Your task to perform on an android device: turn on improve location accuracy Image 0: 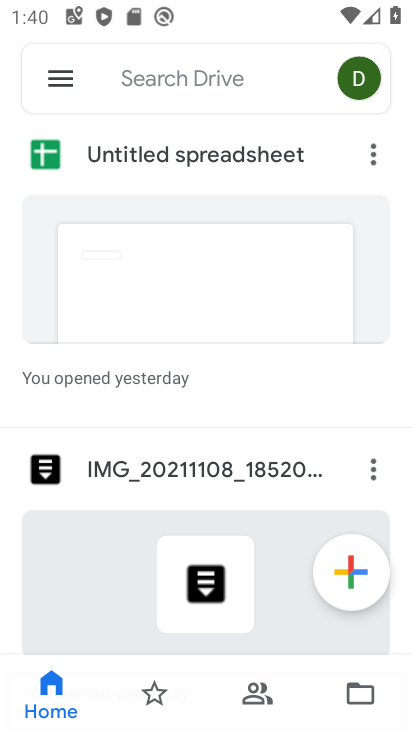
Step 0: press home button
Your task to perform on an android device: turn on improve location accuracy Image 1: 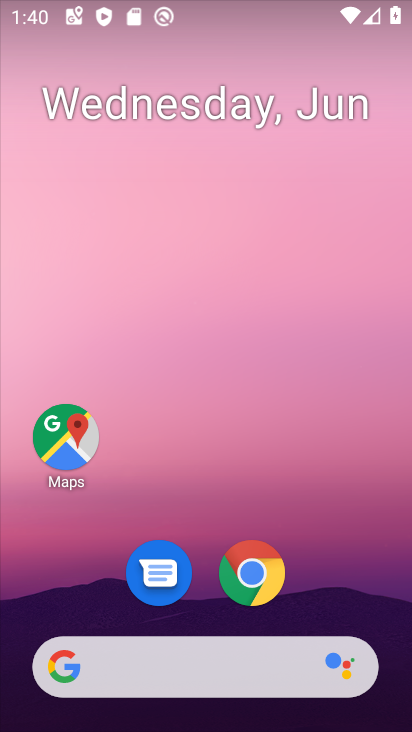
Step 1: drag from (333, 527) to (312, 117)
Your task to perform on an android device: turn on improve location accuracy Image 2: 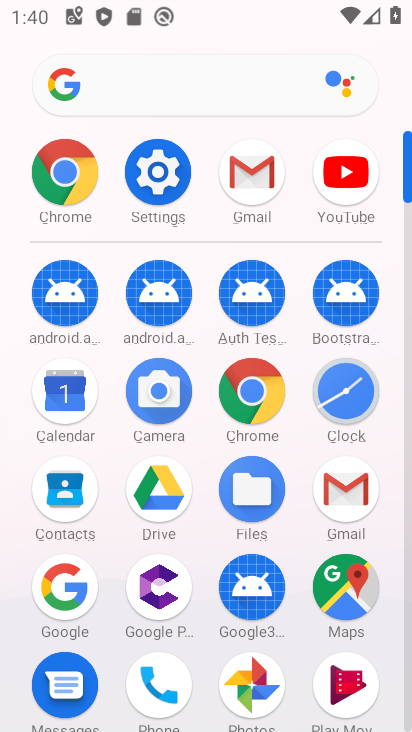
Step 2: click (172, 192)
Your task to perform on an android device: turn on improve location accuracy Image 3: 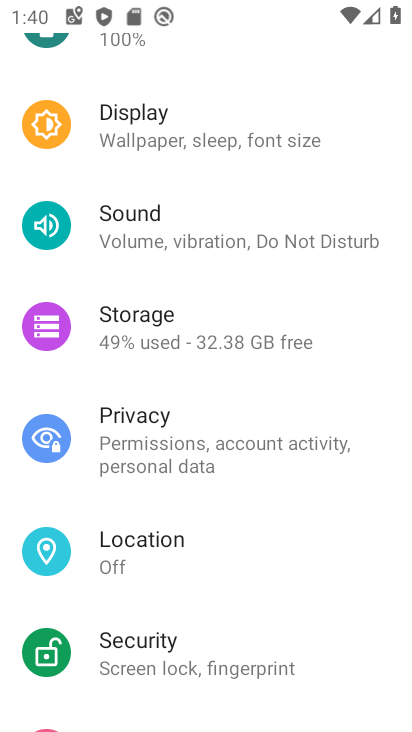
Step 3: click (143, 565)
Your task to perform on an android device: turn on improve location accuracy Image 4: 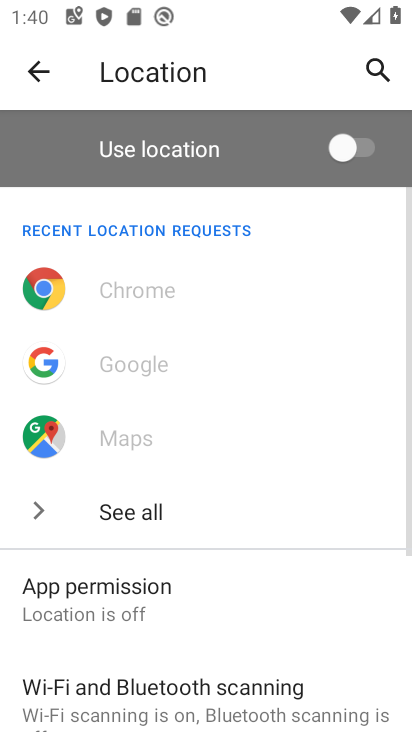
Step 4: drag from (260, 625) to (261, 346)
Your task to perform on an android device: turn on improve location accuracy Image 5: 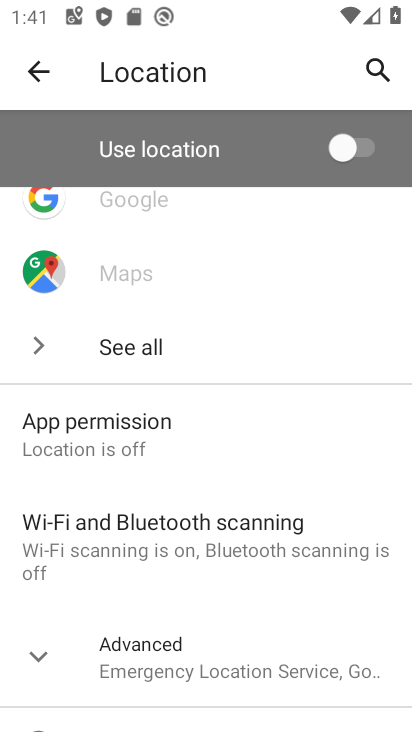
Step 5: click (266, 668)
Your task to perform on an android device: turn on improve location accuracy Image 6: 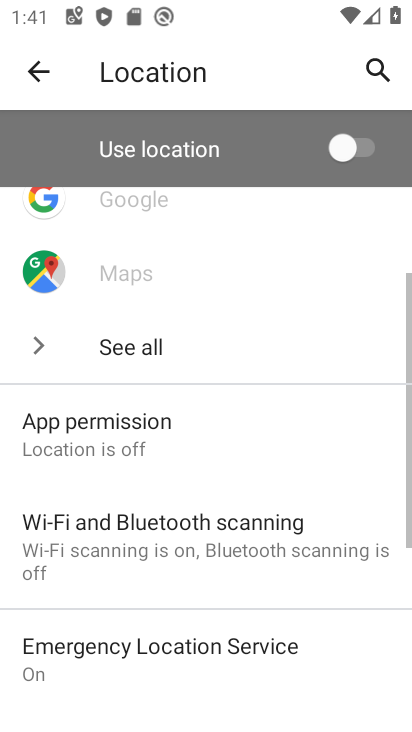
Step 6: drag from (274, 670) to (276, 341)
Your task to perform on an android device: turn on improve location accuracy Image 7: 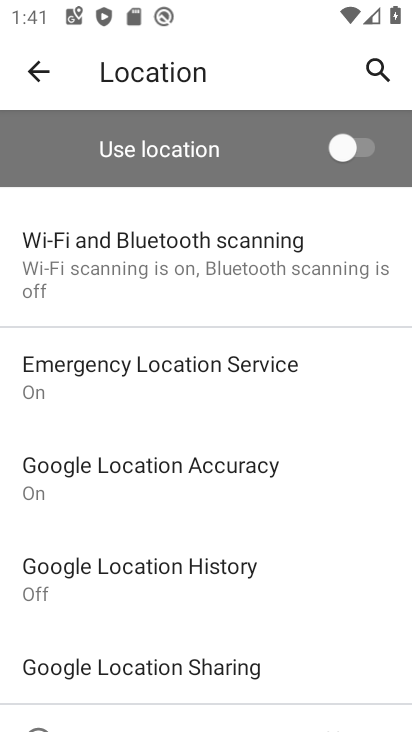
Step 7: click (235, 482)
Your task to perform on an android device: turn on improve location accuracy Image 8: 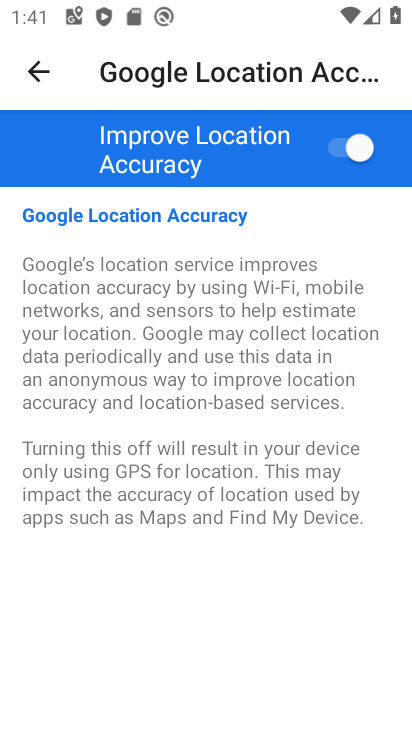
Step 8: task complete